Your task to perform on an android device: open chrome privacy settings Image 0: 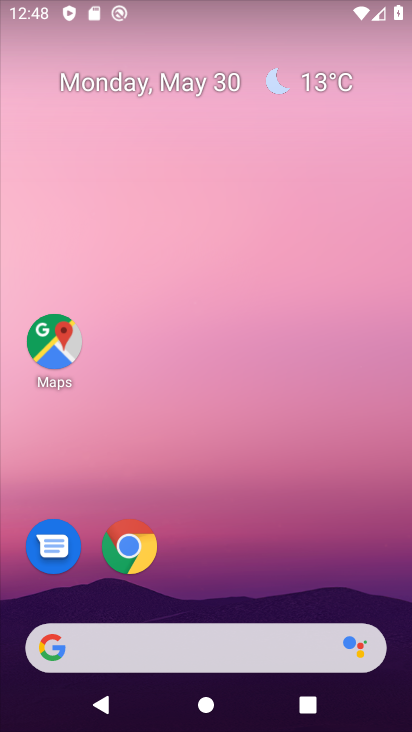
Step 0: press home button
Your task to perform on an android device: open chrome privacy settings Image 1: 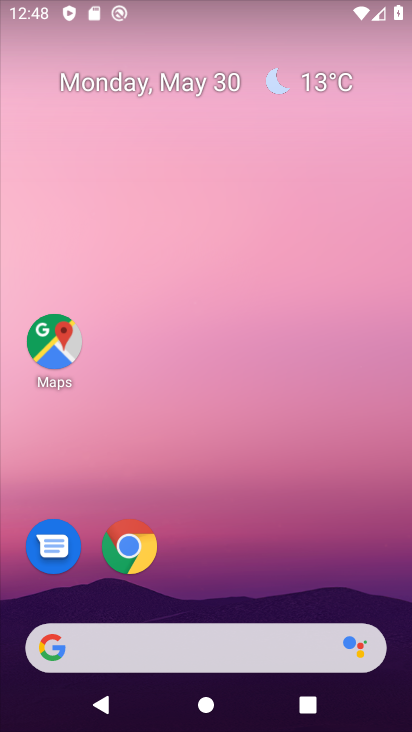
Step 1: click (128, 545)
Your task to perform on an android device: open chrome privacy settings Image 2: 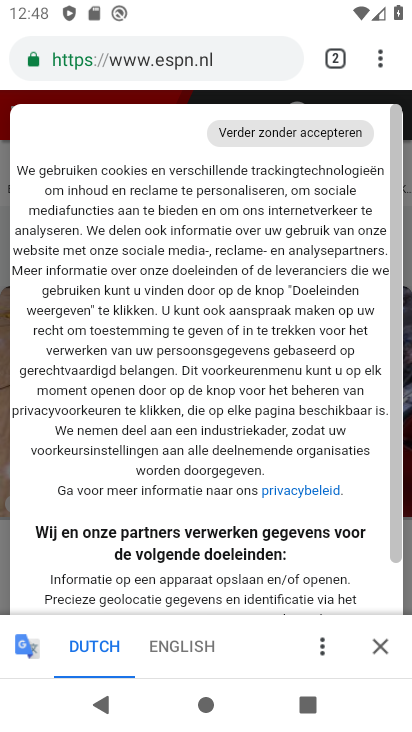
Step 2: drag from (381, 58) to (142, 579)
Your task to perform on an android device: open chrome privacy settings Image 3: 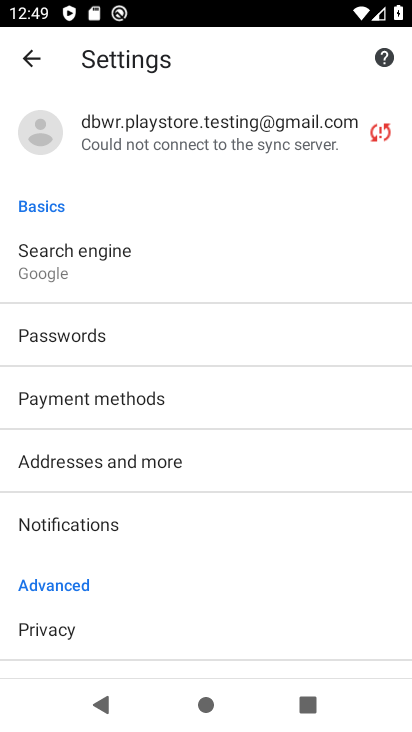
Step 3: click (59, 632)
Your task to perform on an android device: open chrome privacy settings Image 4: 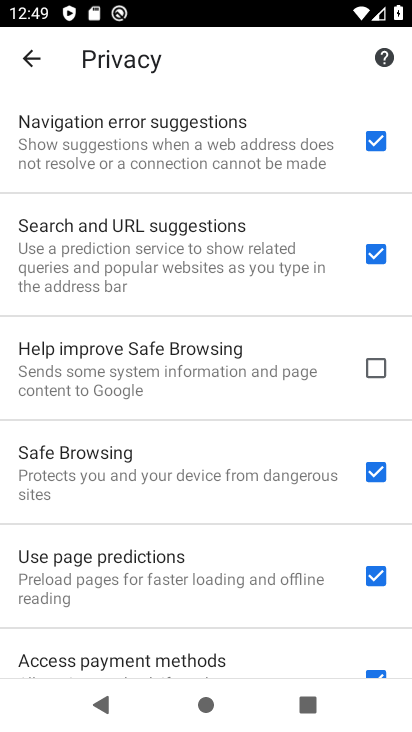
Step 4: task complete